Your task to perform on an android device: turn vacation reply on in the gmail app Image 0: 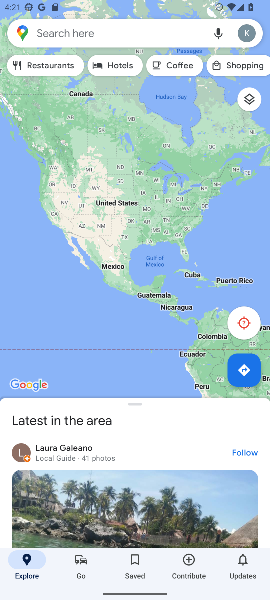
Step 0: drag from (124, 464) to (142, 187)
Your task to perform on an android device: turn vacation reply on in the gmail app Image 1: 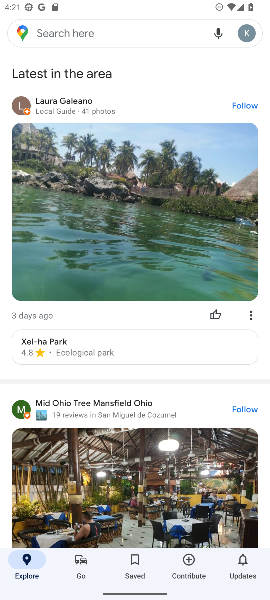
Step 1: click (84, 32)
Your task to perform on an android device: turn vacation reply on in the gmail app Image 2: 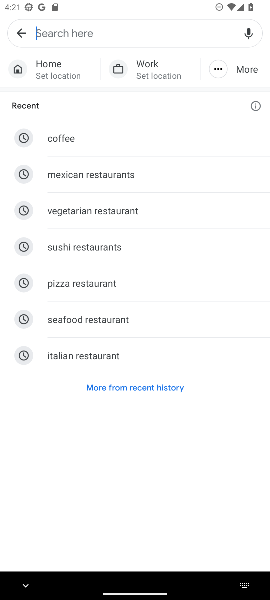
Step 2: press home button
Your task to perform on an android device: turn vacation reply on in the gmail app Image 3: 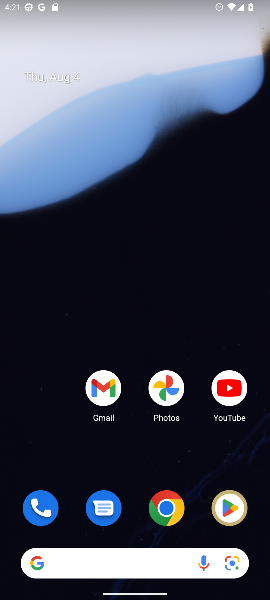
Step 3: drag from (183, 370) to (195, 74)
Your task to perform on an android device: turn vacation reply on in the gmail app Image 4: 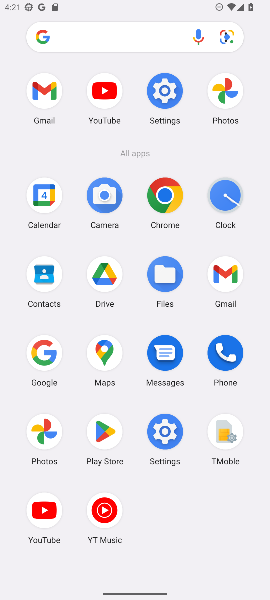
Step 4: click (226, 281)
Your task to perform on an android device: turn vacation reply on in the gmail app Image 5: 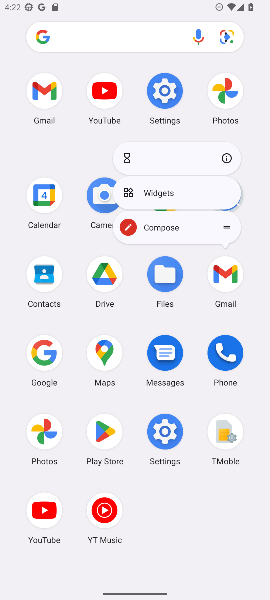
Step 5: click (226, 150)
Your task to perform on an android device: turn vacation reply on in the gmail app Image 6: 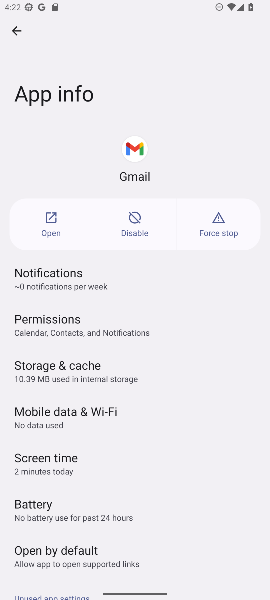
Step 6: click (53, 216)
Your task to perform on an android device: turn vacation reply on in the gmail app Image 7: 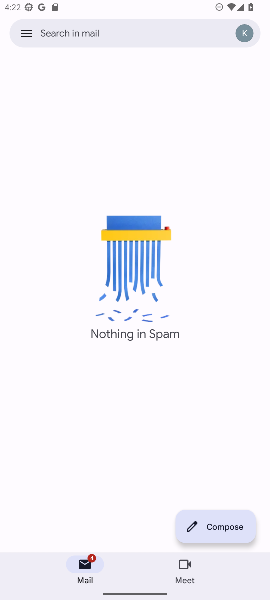
Step 7: click (29, 32)
Your task to perform on an android device: turn vacation reply on in the gmail app Image 8: 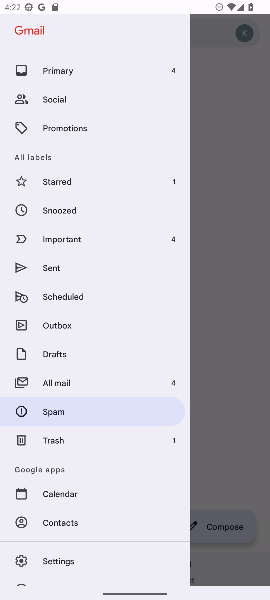
Step 8: click (46, 562)
Your task to perform on an android device: turn vacation reply on in the gmail app Image 9: 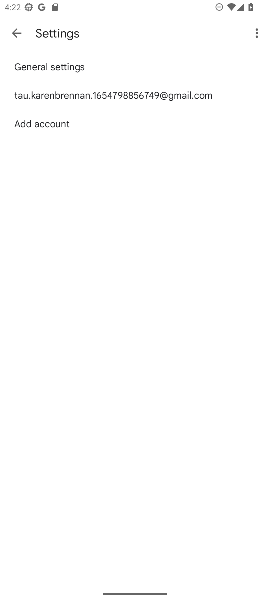
Step 9: drag from (105, 409) to (104, 75)
Your task to perform on an android device: turn vacation reply on in the gmail app Image 10: 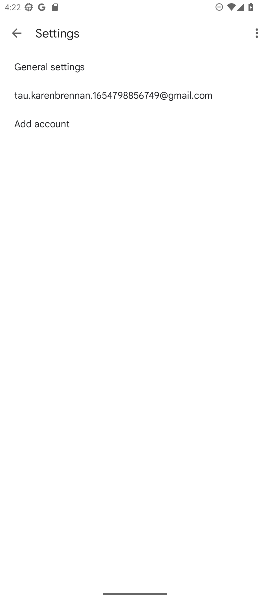
Step 10: click (50, 97)
Your task to perform on an android device: turn vacation reply on in the gmail app Image 11: 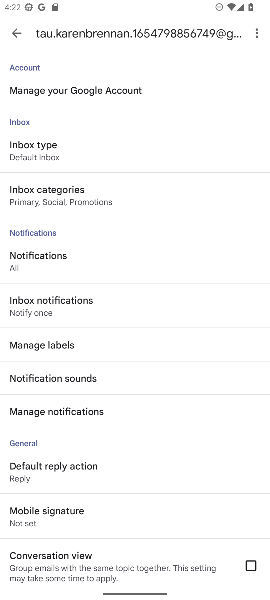
Step 11: drag from (109, 464) to (149, 184)
Your task to perform on an android device: turn vacation reply on in the gmail app Image 12: 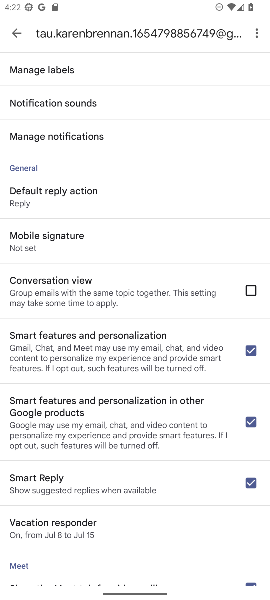
Step 12: click (65, 523)
Your task to perform on an android device: turn vacation reply on in the gmail app Image 13: 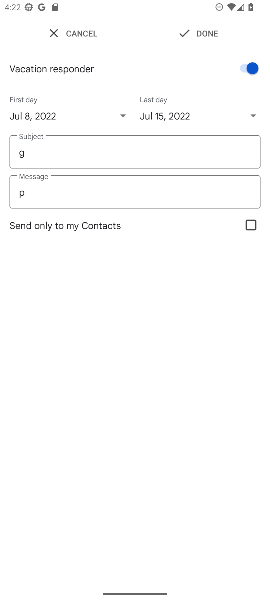
Step 13: drag from (147, 437) to (193, 124)
Your task to perform on an android device: turn vacation reply on in the gmail app Image 14: 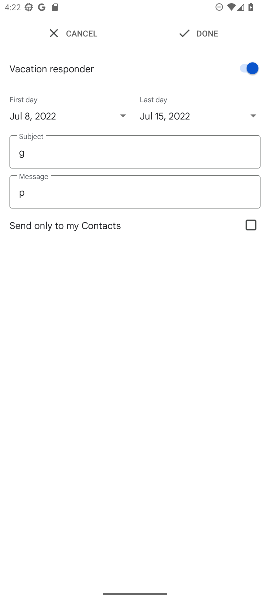
Step 14: click (197, 34)
Your task to perform on an android device: turn vacation reply on in the gmail app Image 15: 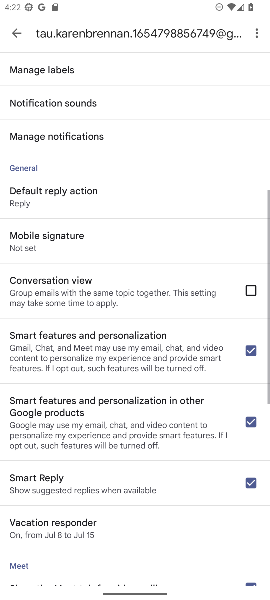
Step 15: task complete